Your task to perform on an android device: Toggle the flashlight Image 0: 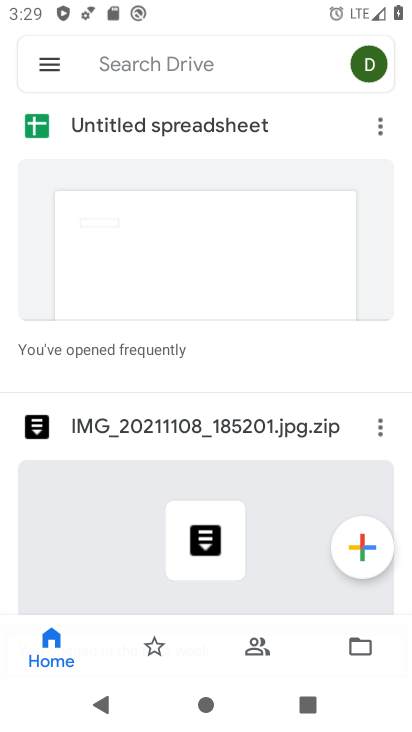
Step 0: press back button
Your task to perform on an android device: Toggle the flashlight Image 1: 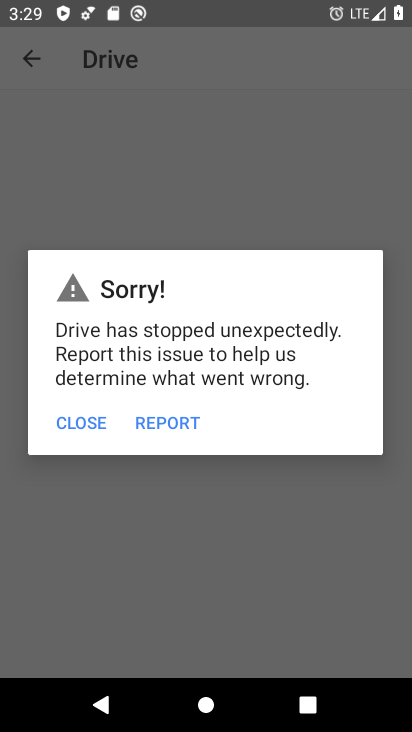
Step 1: press home button
Your task to perform on an android device: Toggle the flashlight Image 2: 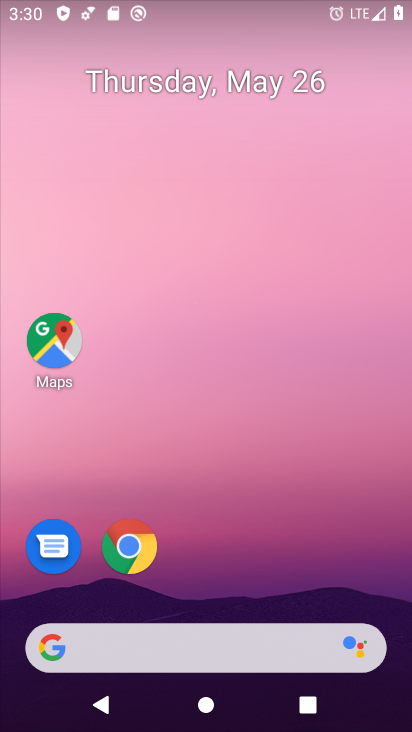
Step 2: drag from (184, 555) to (245, 45)
Your task to perform on an android device: Toggle the flashlight Image 3: 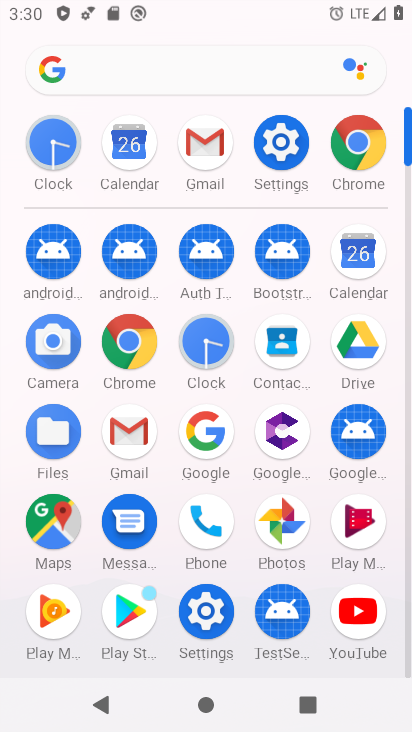
Step 3: click (294, 135)
Your task to perform on an android device: Toggle the flashlight Image 4: 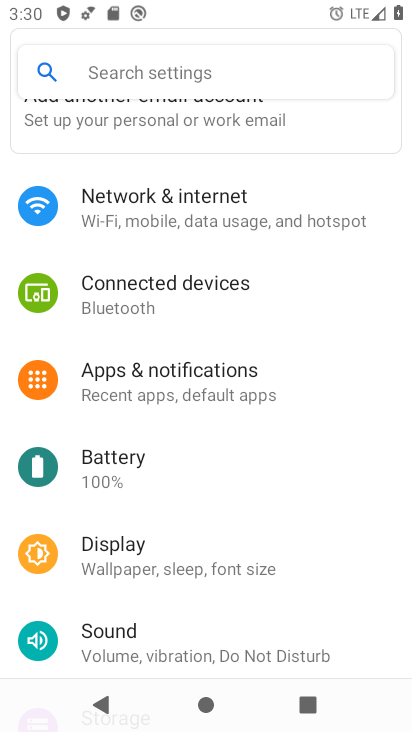
Step 4: click (146, 73)
Your task to perform on an android device: Toggle the flashlight Image 5: 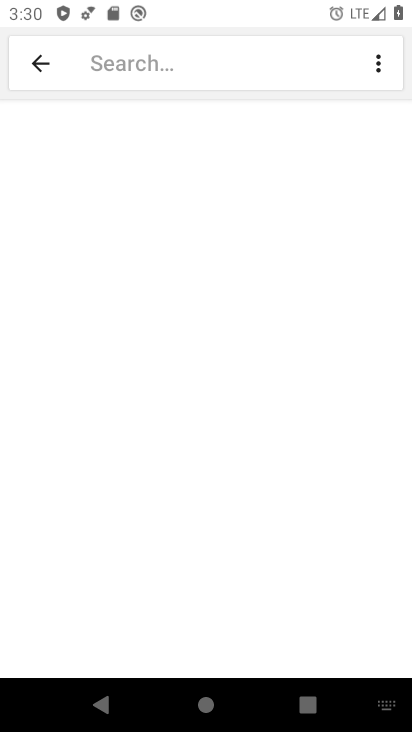
Step 5: type "flashlight"
Your task to perform on an android device: Toggle the flashlight Image 6: 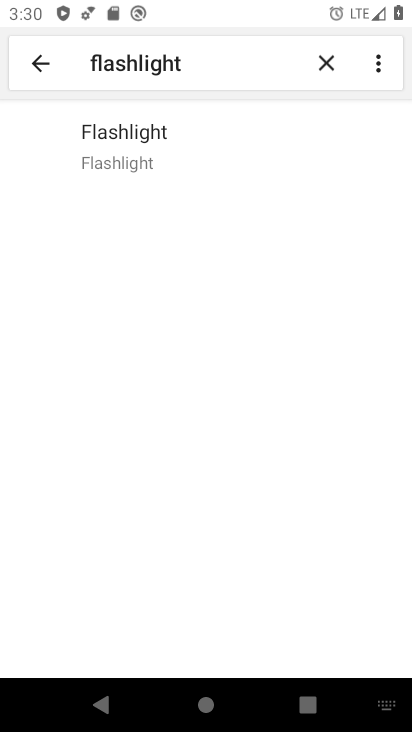
Step 6: click (132, 161)
Your task to perform on an android device: Toggle the flashlight Image 7: 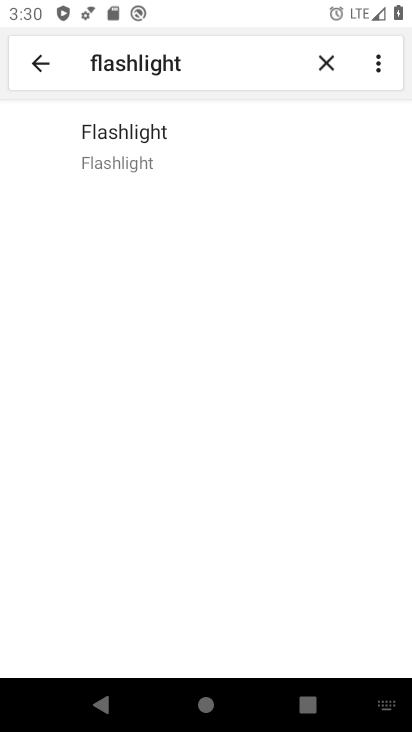
Step 7: click (152, 151)
Your task to perform on an android device: Toggle the flashlight Image 8: 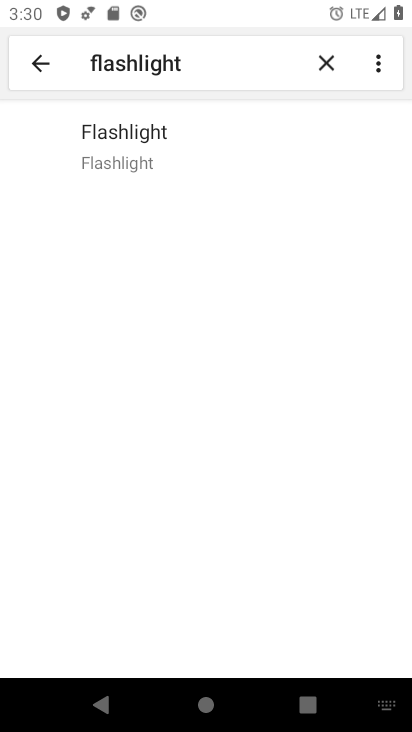
Step 8: click (155, 151)
Your task to perform on an android device: Toggle the flashlight Image 9: 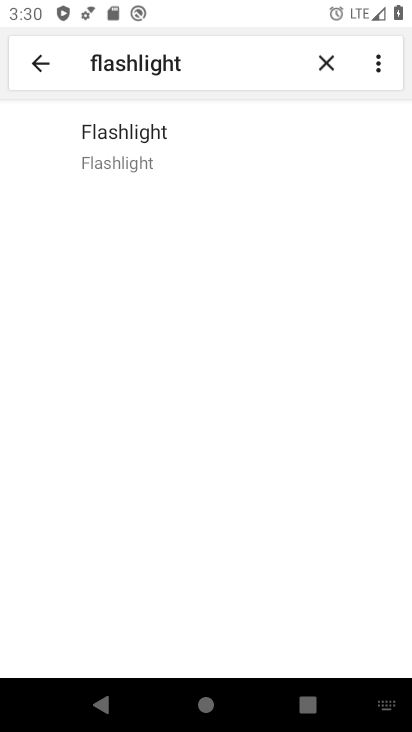
Step 9: task complete